Your task to perform on an android device: turn pop-ups off in chrome Image 0: 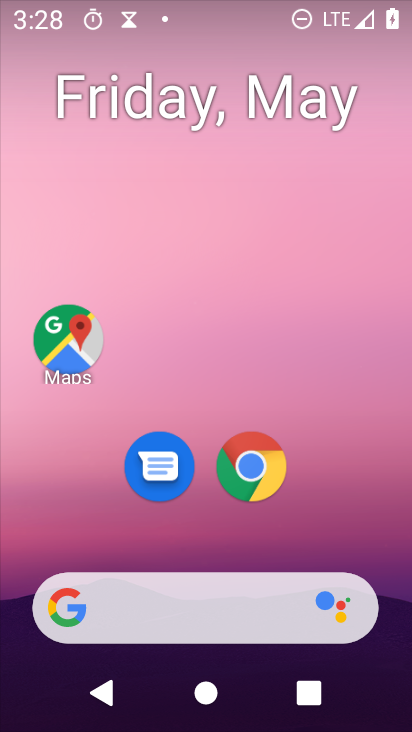
Step 0: drag from (374, 533) to (408, 31)
Your task to perform on an android device: turn pop-ups off in chrome Image 1: 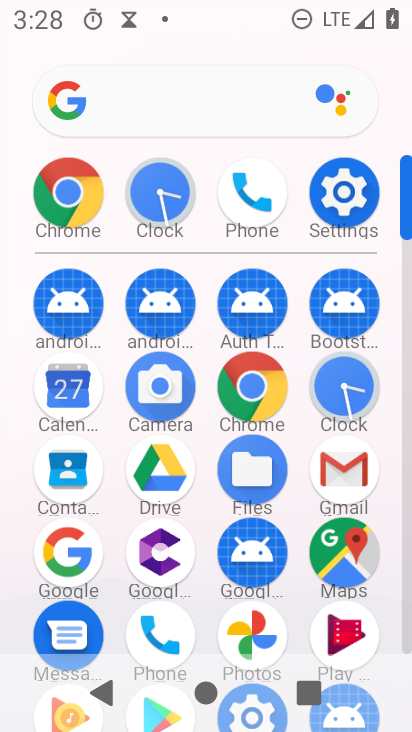
Step 1: click (60, 202)
Your task to perform on an android device: turn pop-ups off in chrome Image 2: 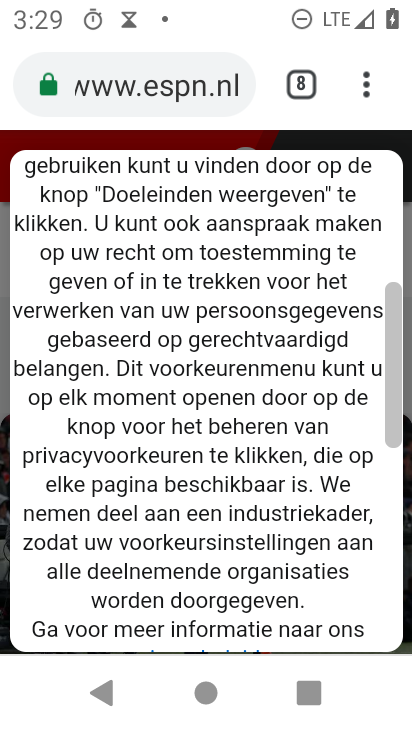
Step 2: drag from (372, 97) to (173, 540)
Your task to perform on an android device: turn pop-ups off in chrome Image 3: 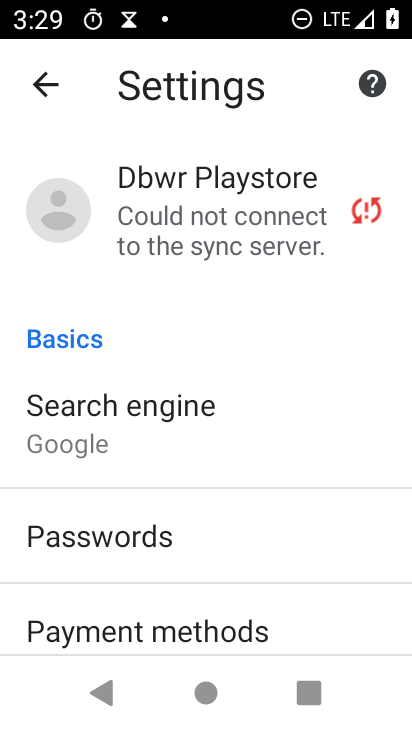
Step 3: drag from (197, 571) to (218, 228)
Your task to perform on an android device: turn pop-ups off in chrome Image 4: 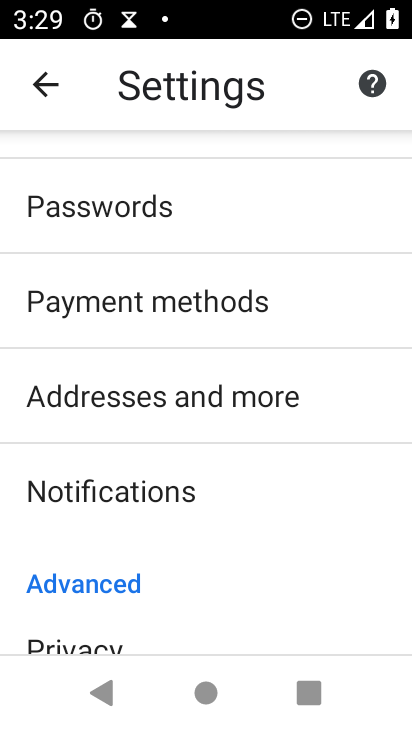
Step 4: drag from (151, 580) to (179, 240)
Your task to perform on an android device: turn pop-ups off in chrome Image 5: 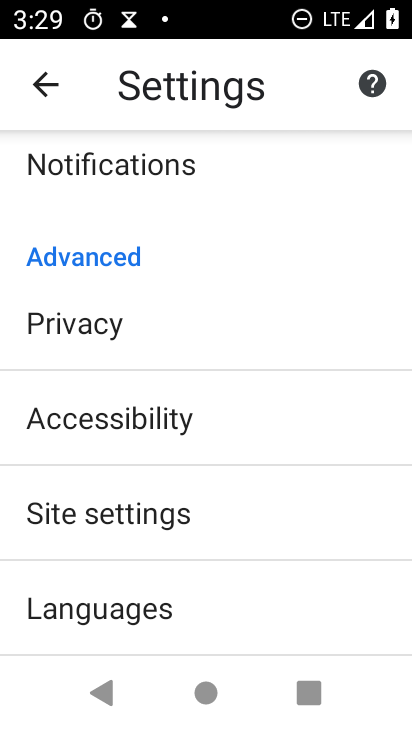
Step 5: click (135, 539)
Your task to perform on an android device: turn pop-ups off in chrome Image 6: 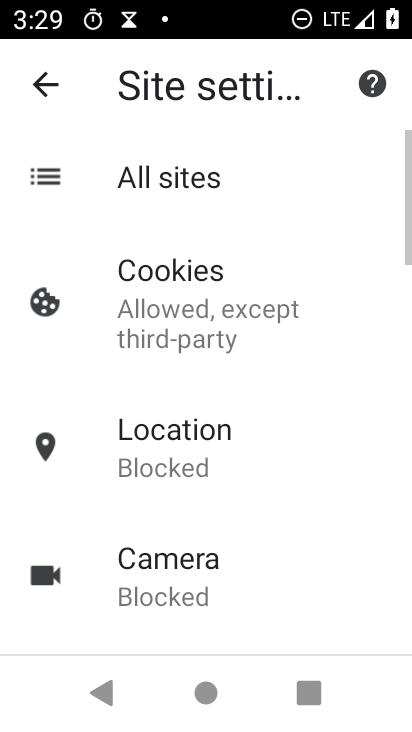
Step 6: drag from (143, 584) to (231, 172)
Your task to perform on an android device: turn pop-ups off in chrome Image 7: 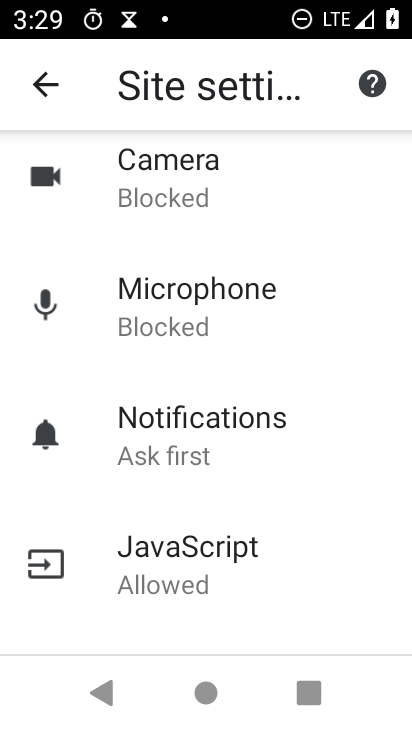
Step 7: drag from (204, 582) to (315, 137)
Your task to perform on an android device: turn pop-ups off in chrome Image 8: 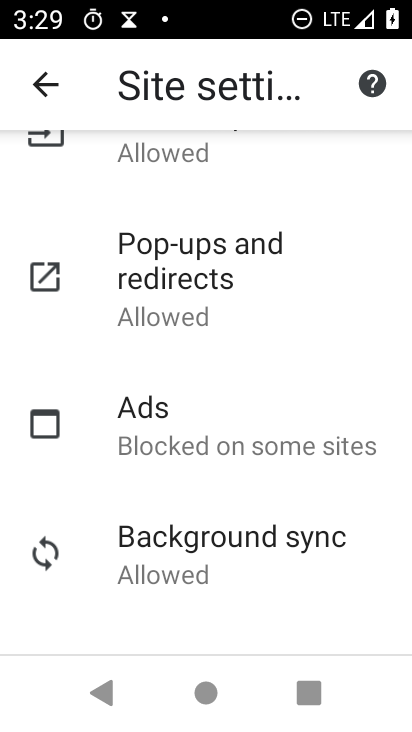
Step 8: click (146, 255)
Your task to perform on an android device: turn pop-ups off in chrome Image 9: 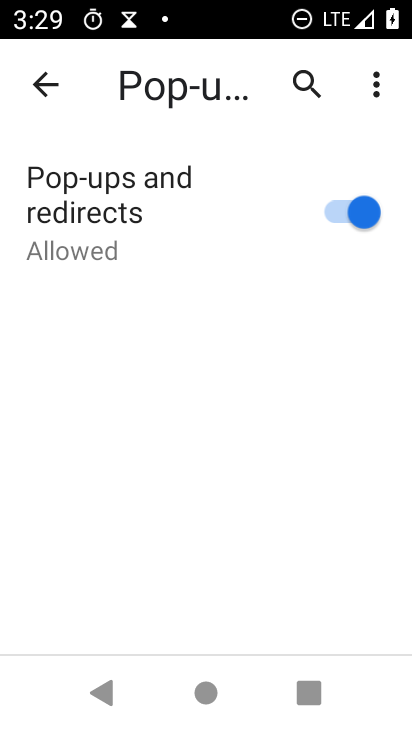
Step 9: click (329, 221)
Your task to perform on an android device: turn pop-ups off in chrome Image 10: 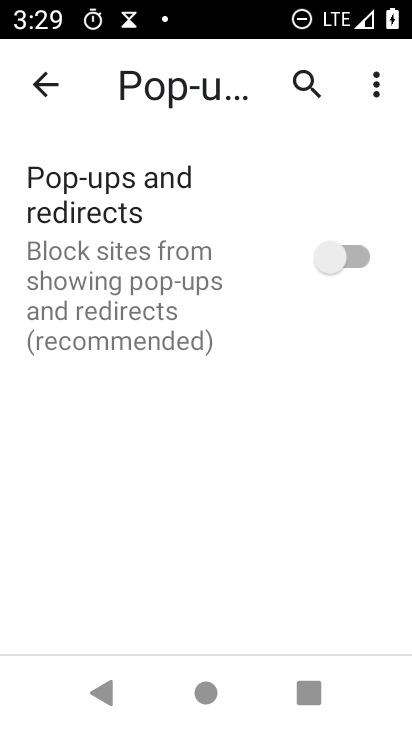
Step 10: task complete